Your task to perform on an android device: Show me productivity apps on the Play Store Image 0: 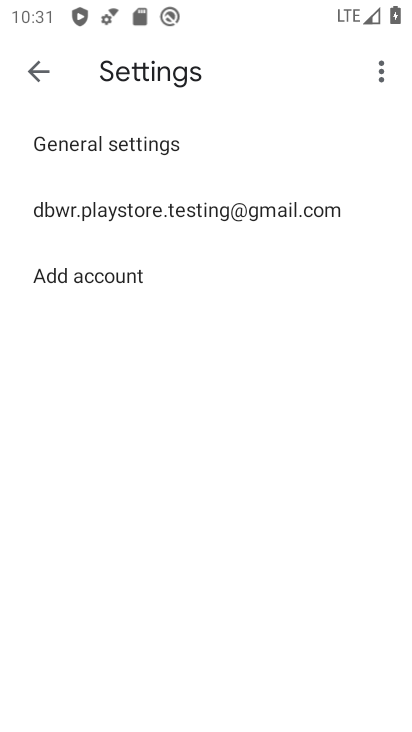
Step 0: press home button
Your task to perform on an android device: Show me productivity apps on the Play Store Image 1: 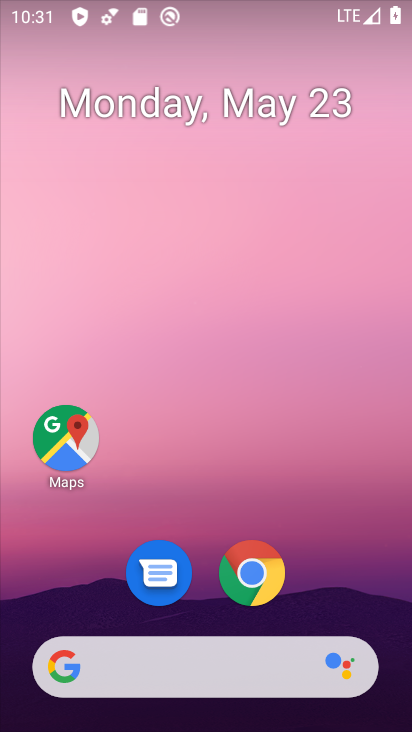
Step 1: drag from (68, 602) to (152, 173)
Your task to perform on an android device: Show me productivity apps on the Play Store Image 2: 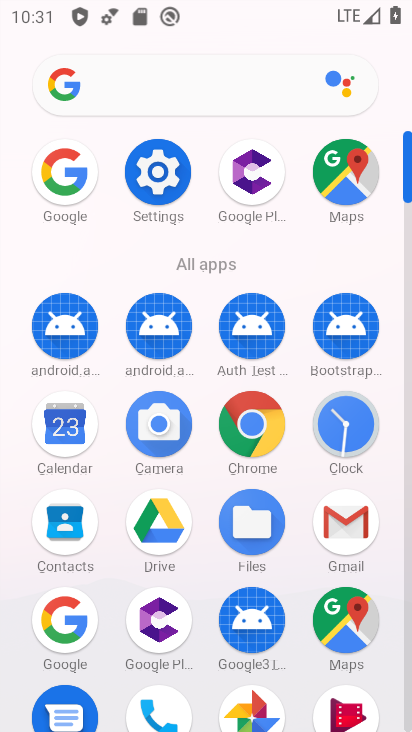
Step 2: drag from (142, 667) to (183, 329)
Your task to perform on an android device: Show me productivity apps on the Play Store Image 3: 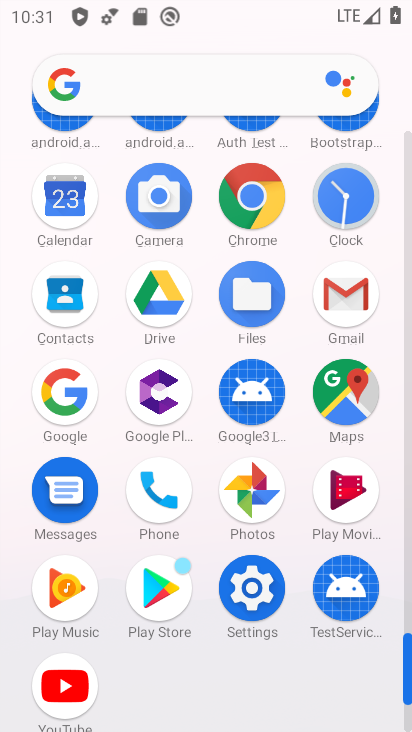
Step 3: click (161, 614)
Your task to perform on an android device: Show me productivity apps on the Play Store Image 4: 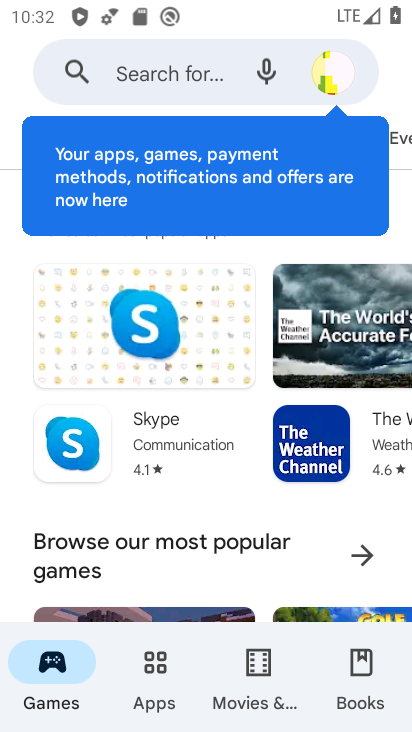
Step 4: click (150, 682)
Your task to perform on an android device: Show me productivity apps on the Play Store Image 5: 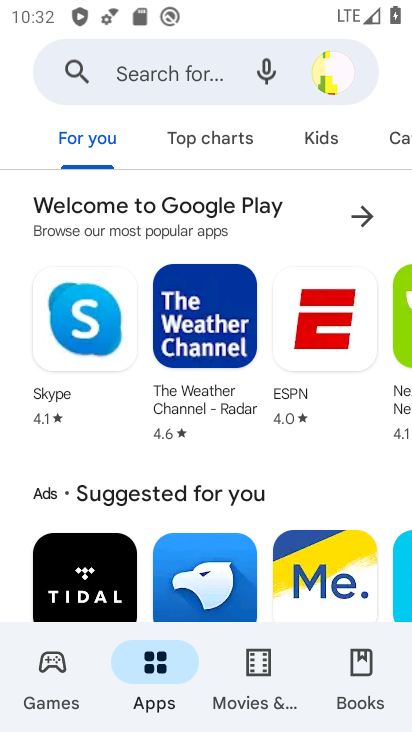
Step 5: drag from (345, 136) to (0, 131)
Your task to perform on an android device: Show me productivity apps on the Play Store Image 6: 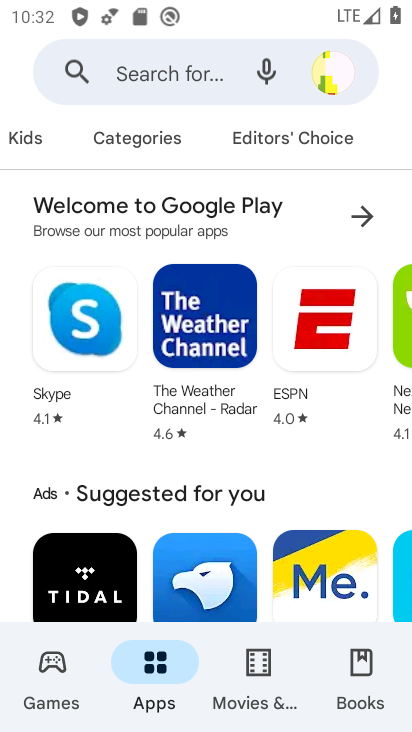
Step 6: click (165, 138)
Your task to perform on an android device: Show me productivity apps on the Play Store Image 7: 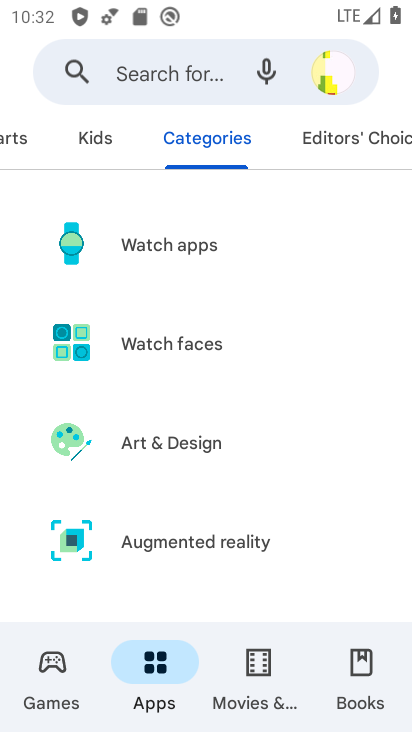
Step 7: drag from (141, 603) to (250, 151)
Your task to perform on an android device: Show me productivity apps on the Play Store Image 8: 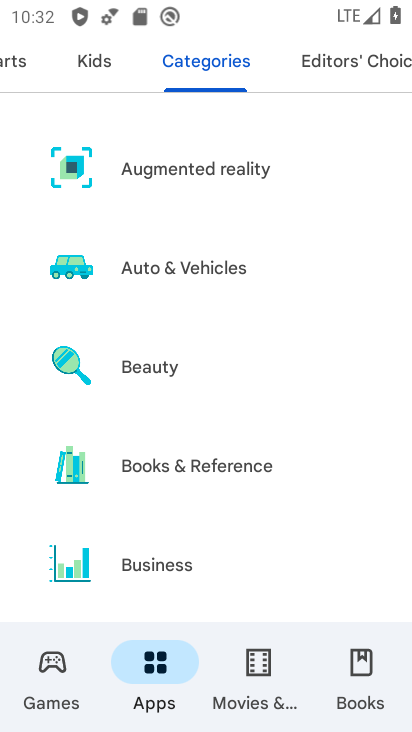
Step 8: drag from (134, 560) to (280, 136)
Your task to perform on an android device: Show me productivity apps on the Play Store Image 9: 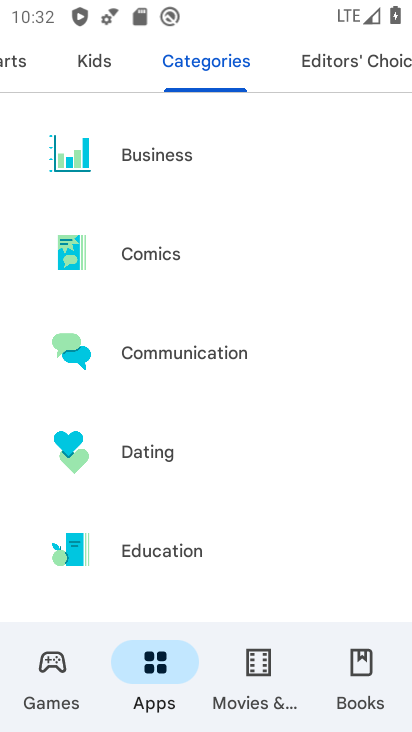
Step 9: drag from (149, 576) to (283, 79)
Your task to perform on an android device: Show me productivity apps on the Play Store Image 10: 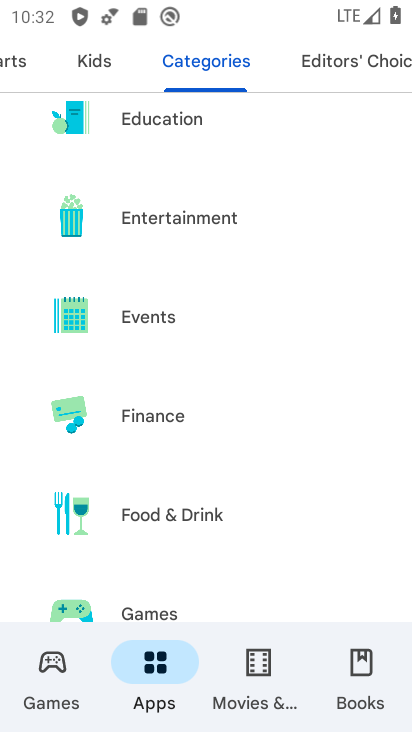
Step 10: drag from (166, 579) to (286, 61)
Your task to perform on an android device: Show me productivity apps on the Play Store Image 11: 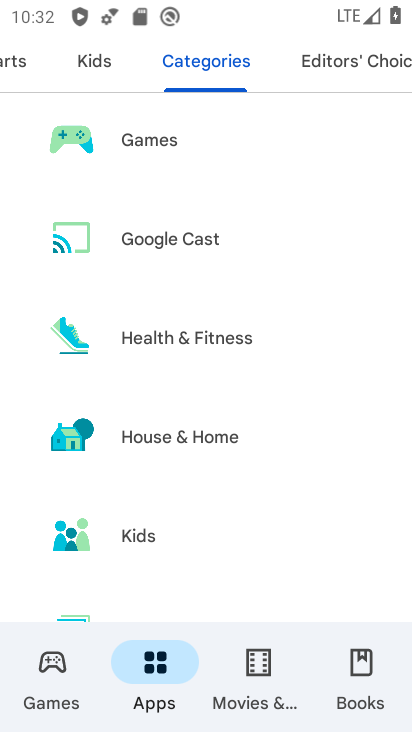
Step 11: drag from (215, 543) to (321, 3)
Your task to perform on an android device: Show me productivity apps on the Play Store Image 12: 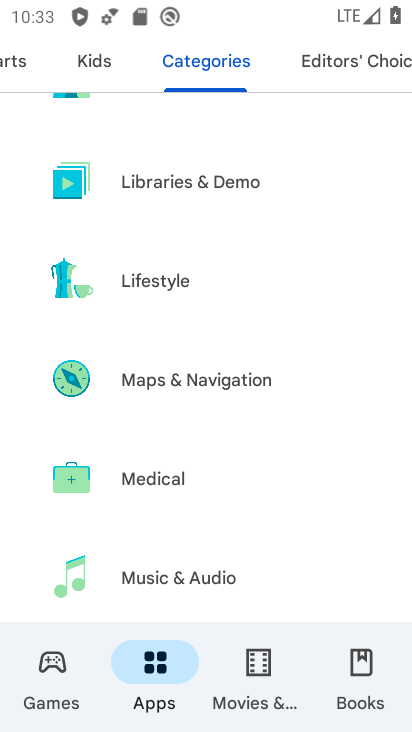
Step 12: drag from (140, 550) to (257, 44)
Your task to perform on an android device: Show me productivity apps on the Play Store Image 13: 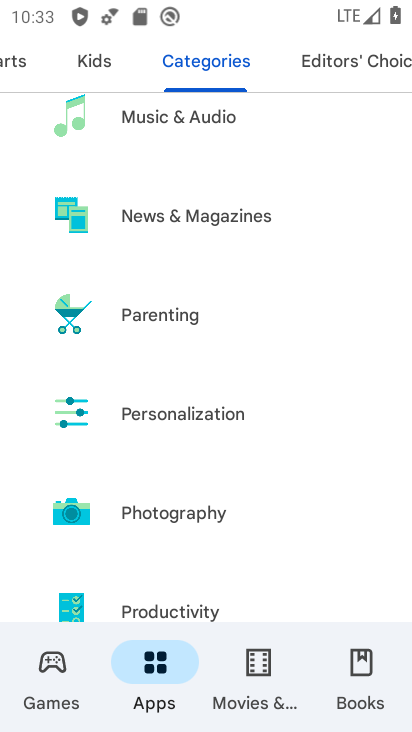
Step 13: drag from (165, 602) to (226, 308)
Your task to perform on an android device: Show me productivity apps on the Play Store Image 14: 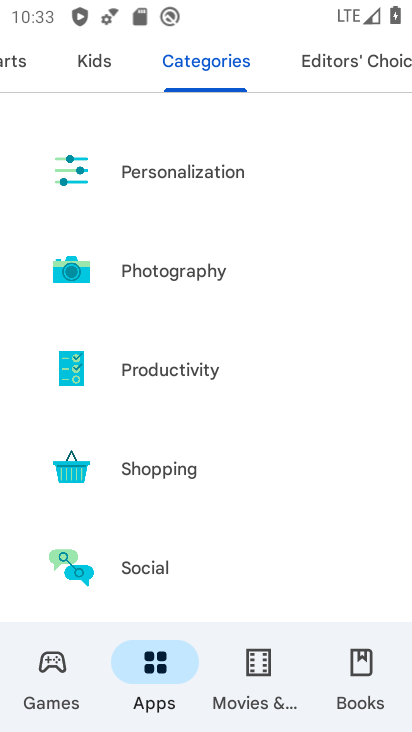
Step 14: click (211, 391)
Your task to perform on an android device: Show me productivity apps on the Play Store Image 15: 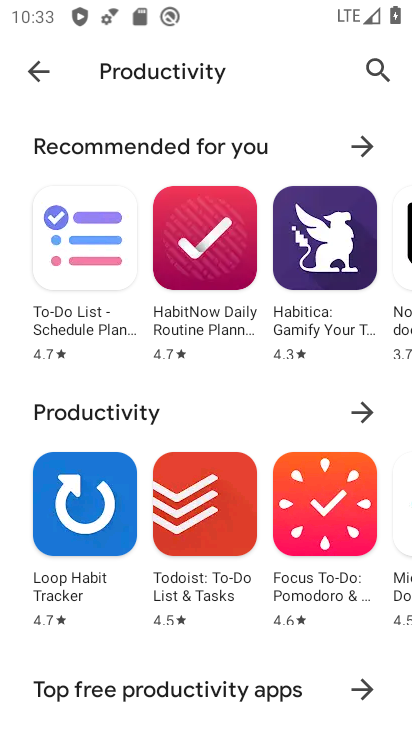
Step 15: task complete